Your task to perform on an android device: Open maps Image 0: 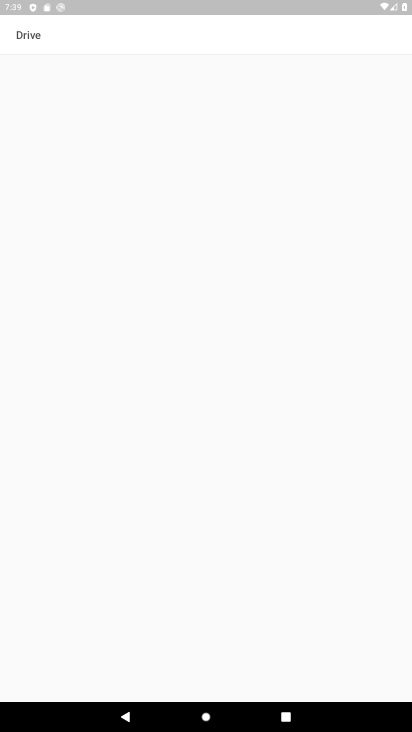
Step 0: press home button
Your task to perform on an android device: Open maps Image 1: 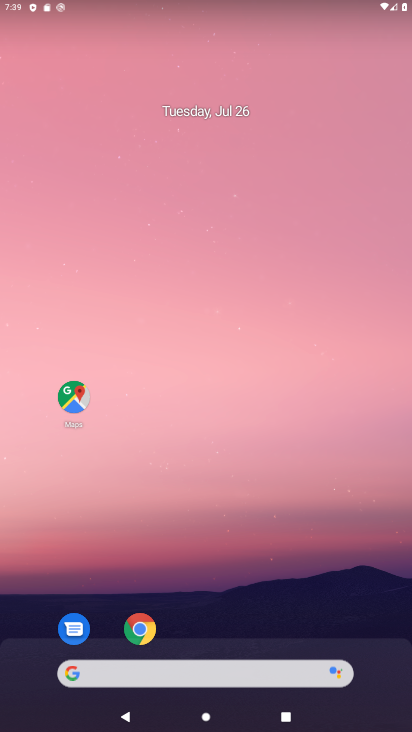
Step 1: click (72, 394)
Your task to perform on an android device: Open maps Image 2: 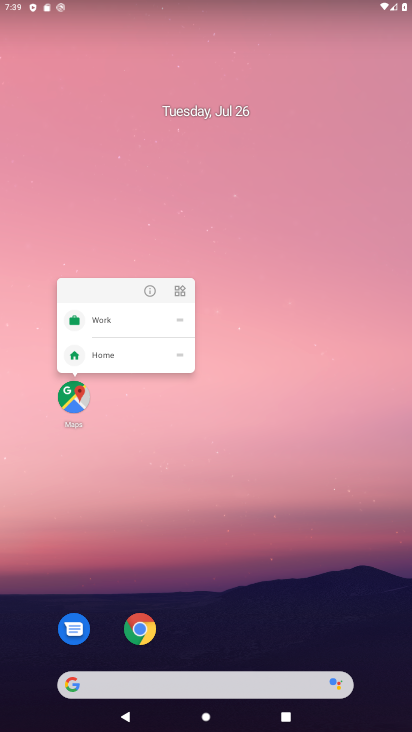
Step 2: click (73, 394)
Your task to perform on an android device: Open maps Image 3: 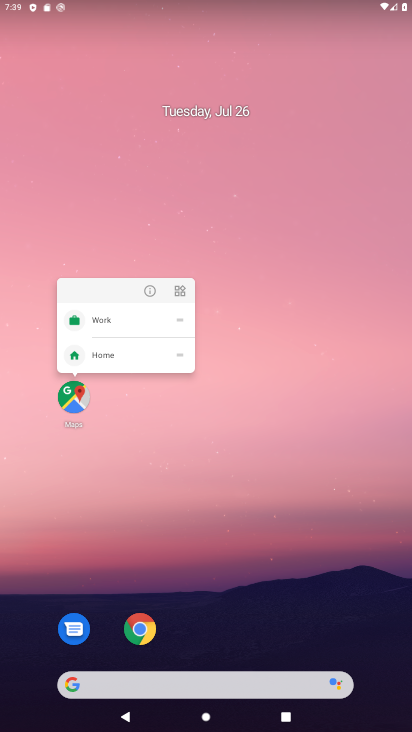
Step 3: click (73, 395)
Your task to perform on an android device: Open maps Image 4: 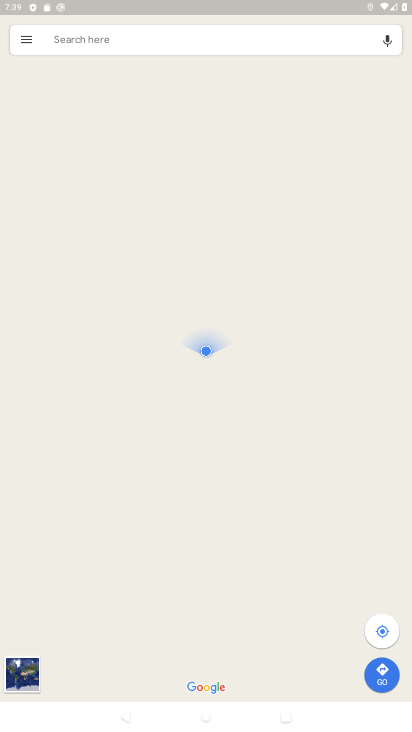
Step 4: task complete